Your task to perform on an android device: Clear the shopping cart on newegg.com. Add "logitech g933" to the cart on newegg.com, then select checkout. Image 0: 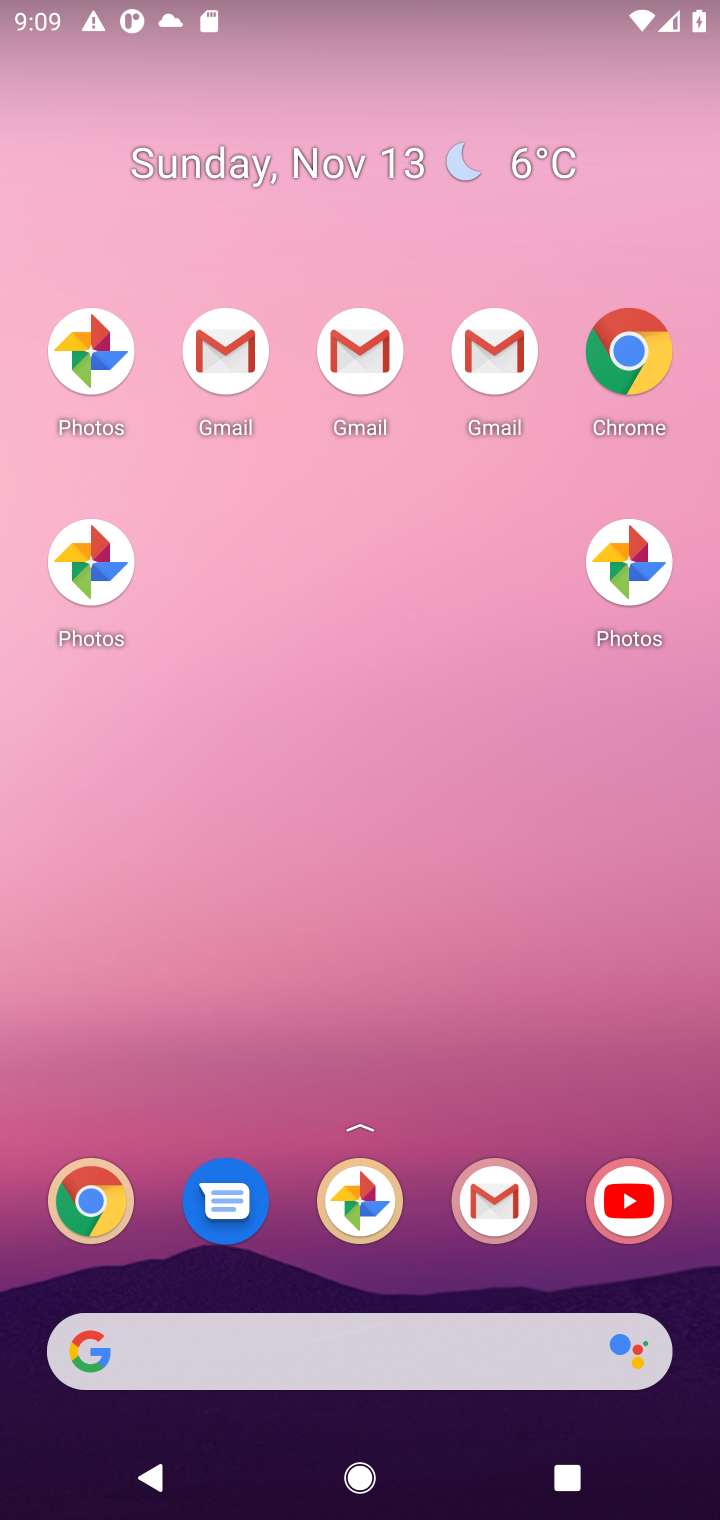
Step 0: drag from (430, 959) to (516, 54)
Your task to perform on an android device: Clear the shopping cart on newegg.com. Add "logitech g933" to the cart on newegg.com, then select checkout. Image 1: 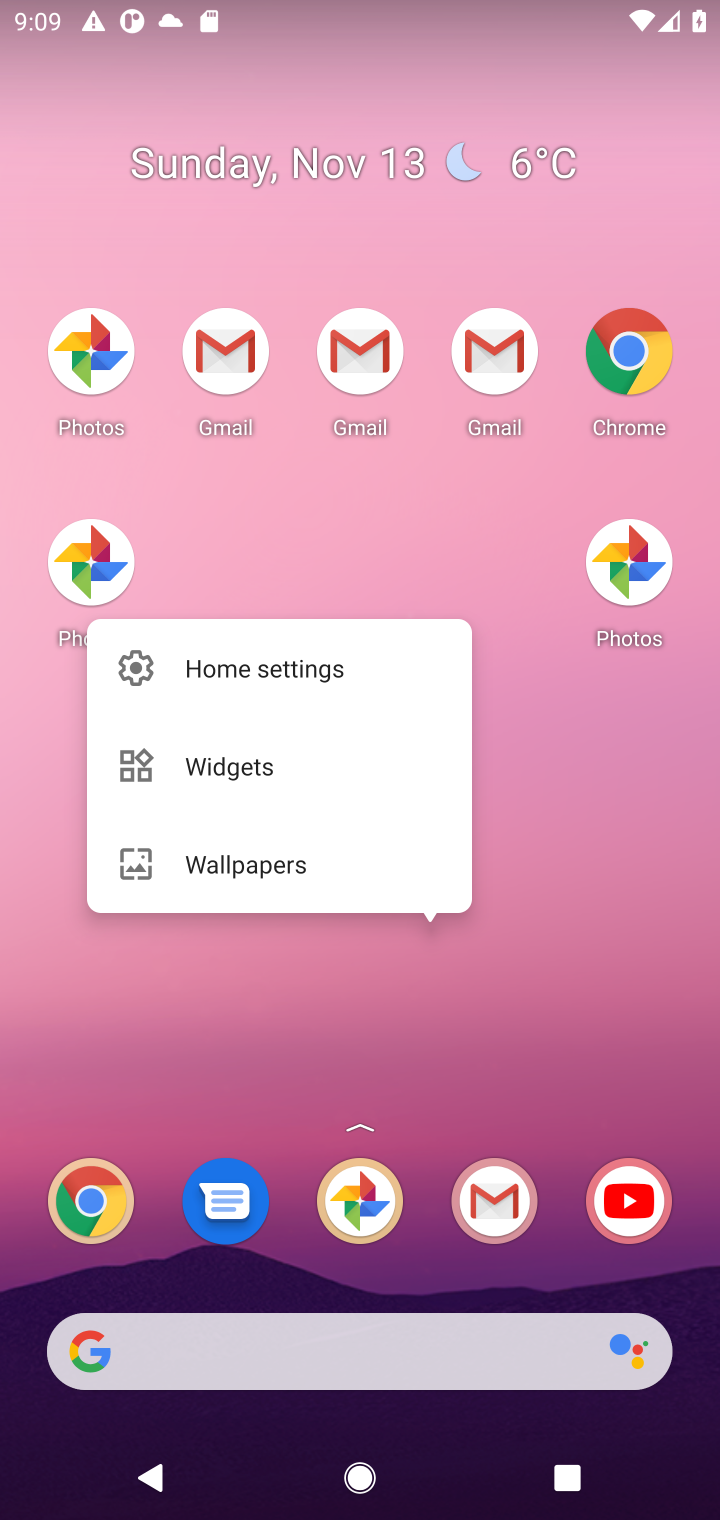
Step 1: click (552, 993)
Your task to perform on an android device: Clear the shopping cart on newegg.com. Add "logitech g933" to the cart on newegg.com, then select checkout. Image 2: 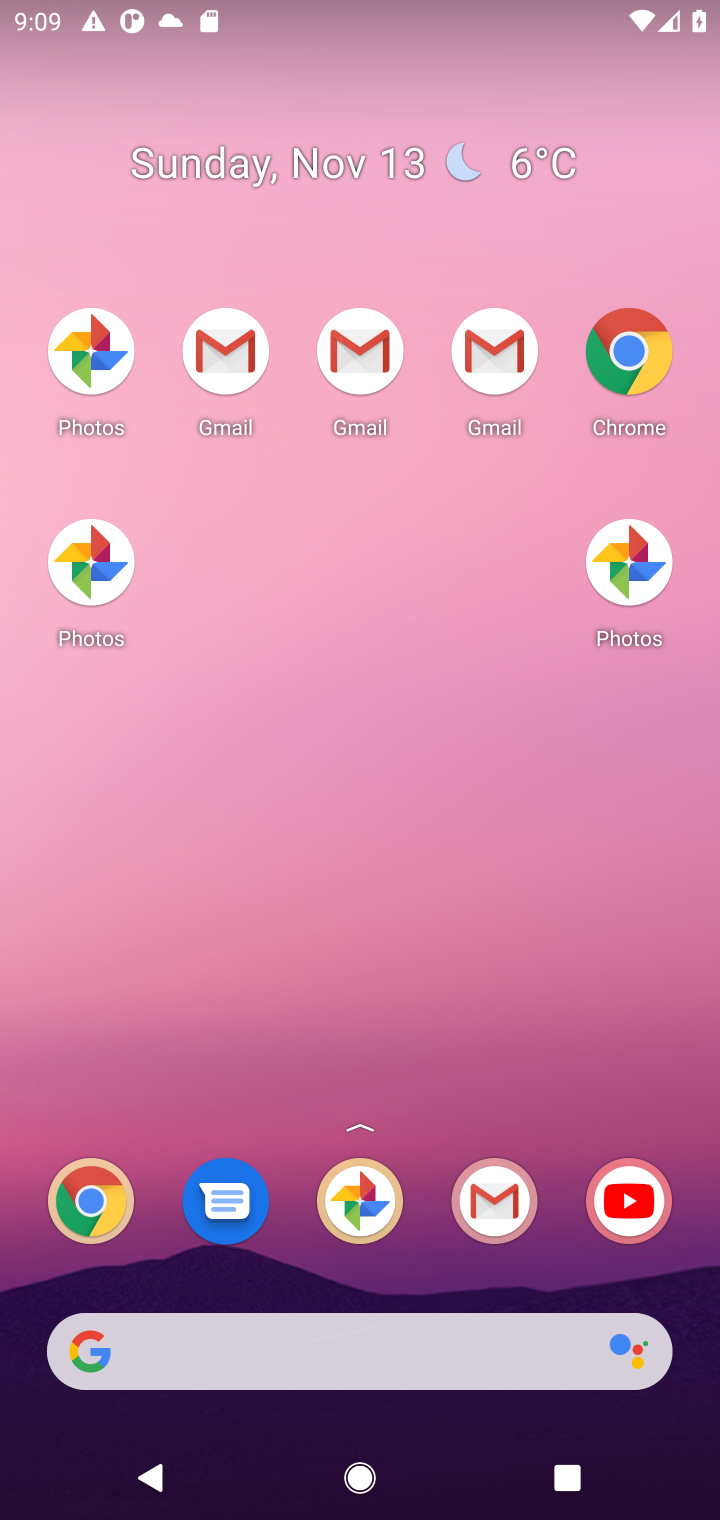
Step 2: drag from (439, 679) to (475, 47)
Your task to perform on an android device: Clear the shopping cart on newegg.com. Add "logitech g933" to the cart on newegg.com, then select checkout. Image 3: 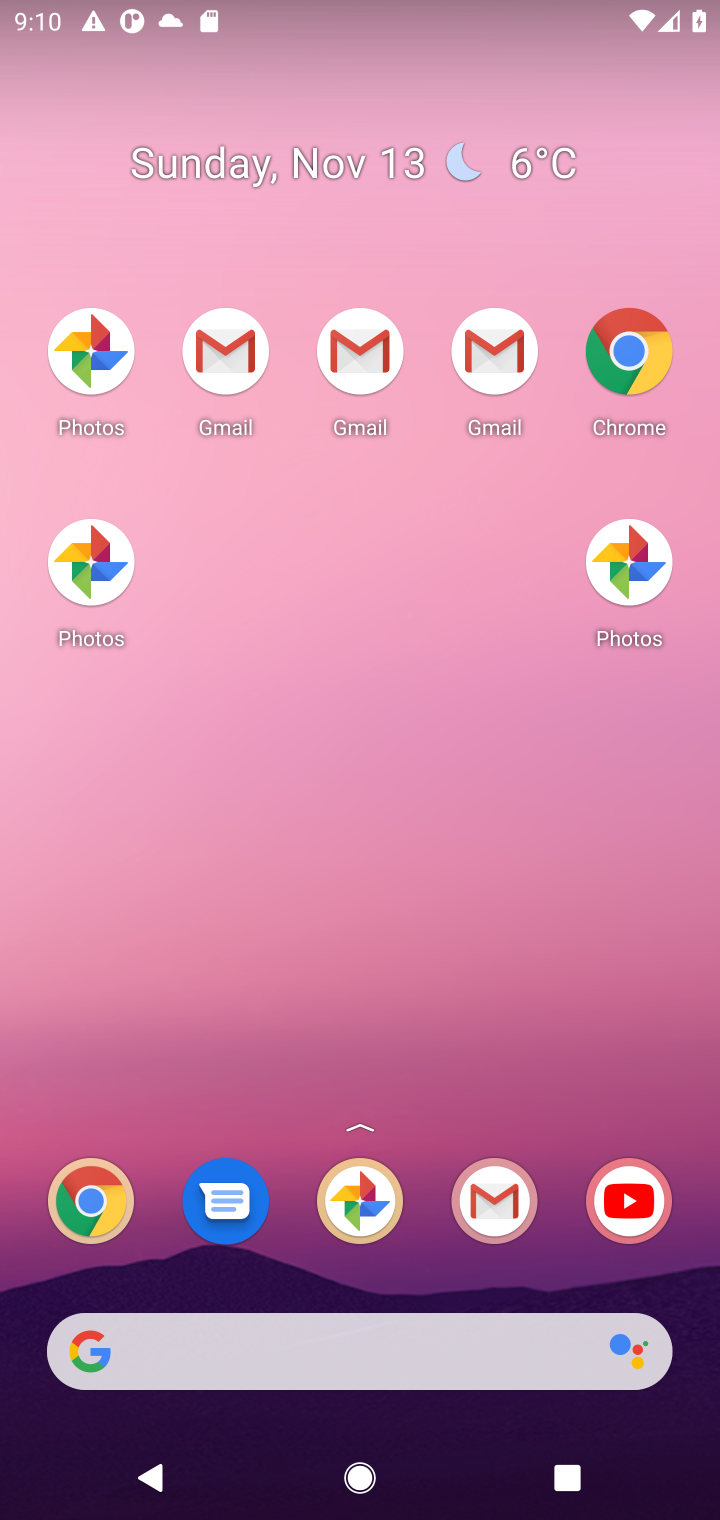
Step 3: drag from (473, 981) to (481, 30)
Your task to perform on an android device: Clear the shopping cart on newegg.com. Add "logitech g933" to the cart on newegg.com, then select checkout. Image 4: 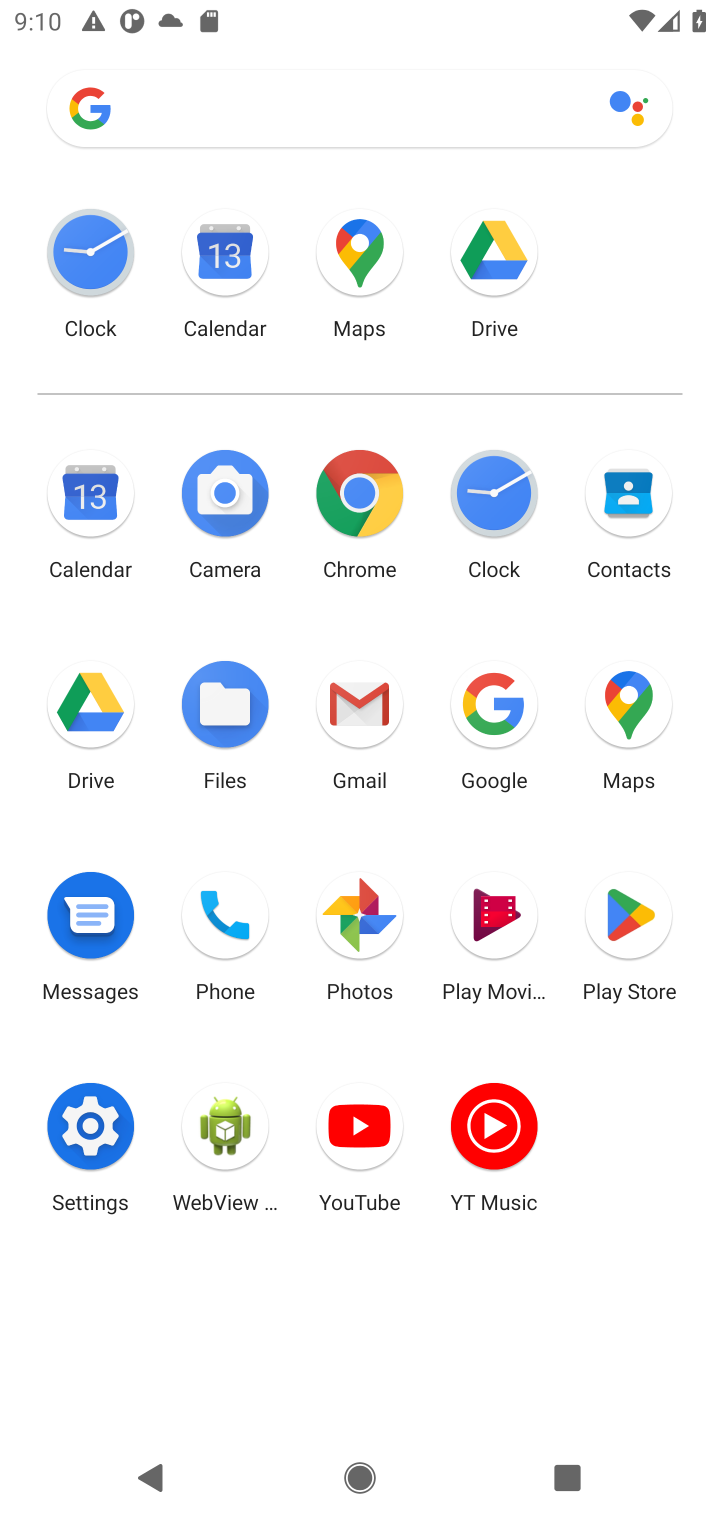
Step 4: click (334, 509)
Your task to perform on an android device: Clear the shopping cart on newegg.com. Add "logitech g933" to the cart on newegg.com, then select checkout. Image 5: 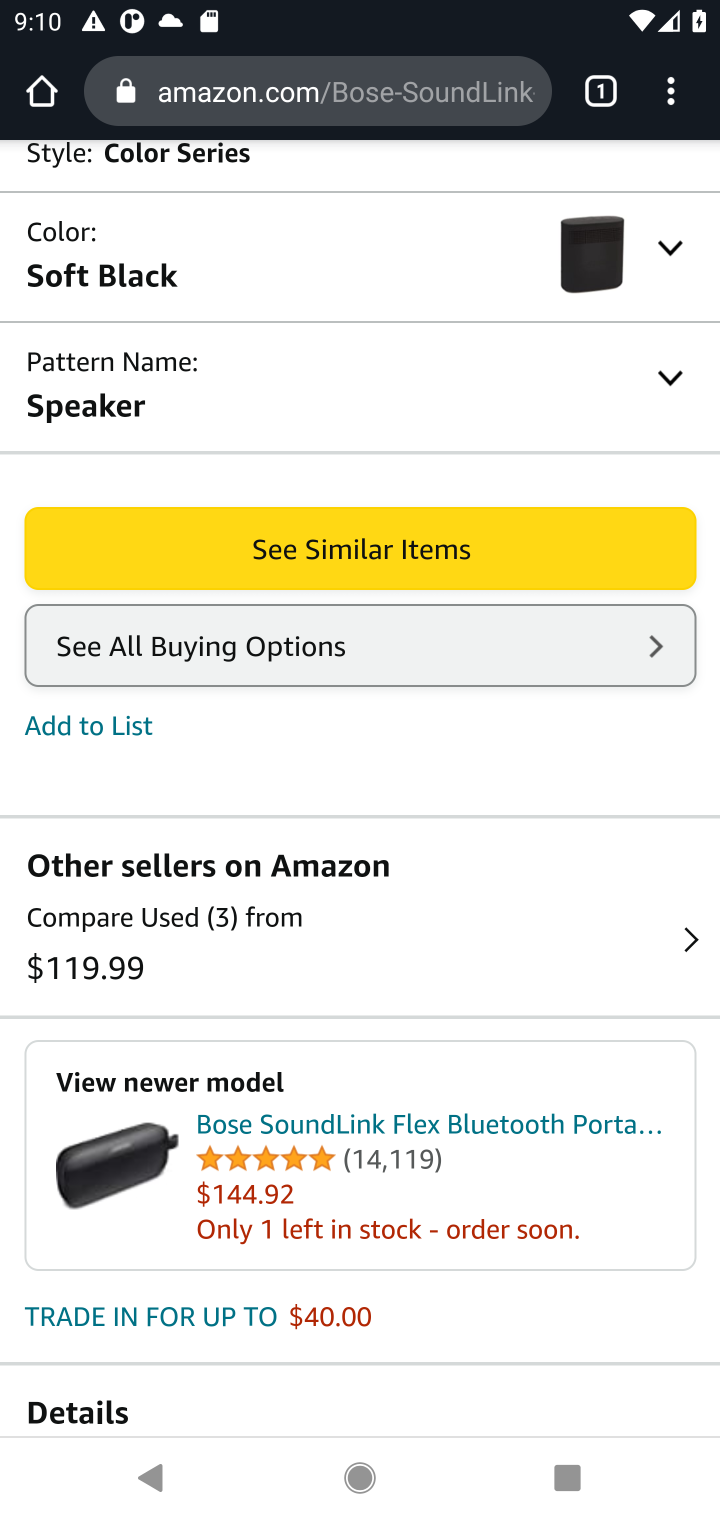
Step 5: click (370, 79)
Your task to perform on an android device: Clear the shopping cart on newegg.com. Add "logitech g933" to the cart on newegg.com, then select checkout. Image 6: 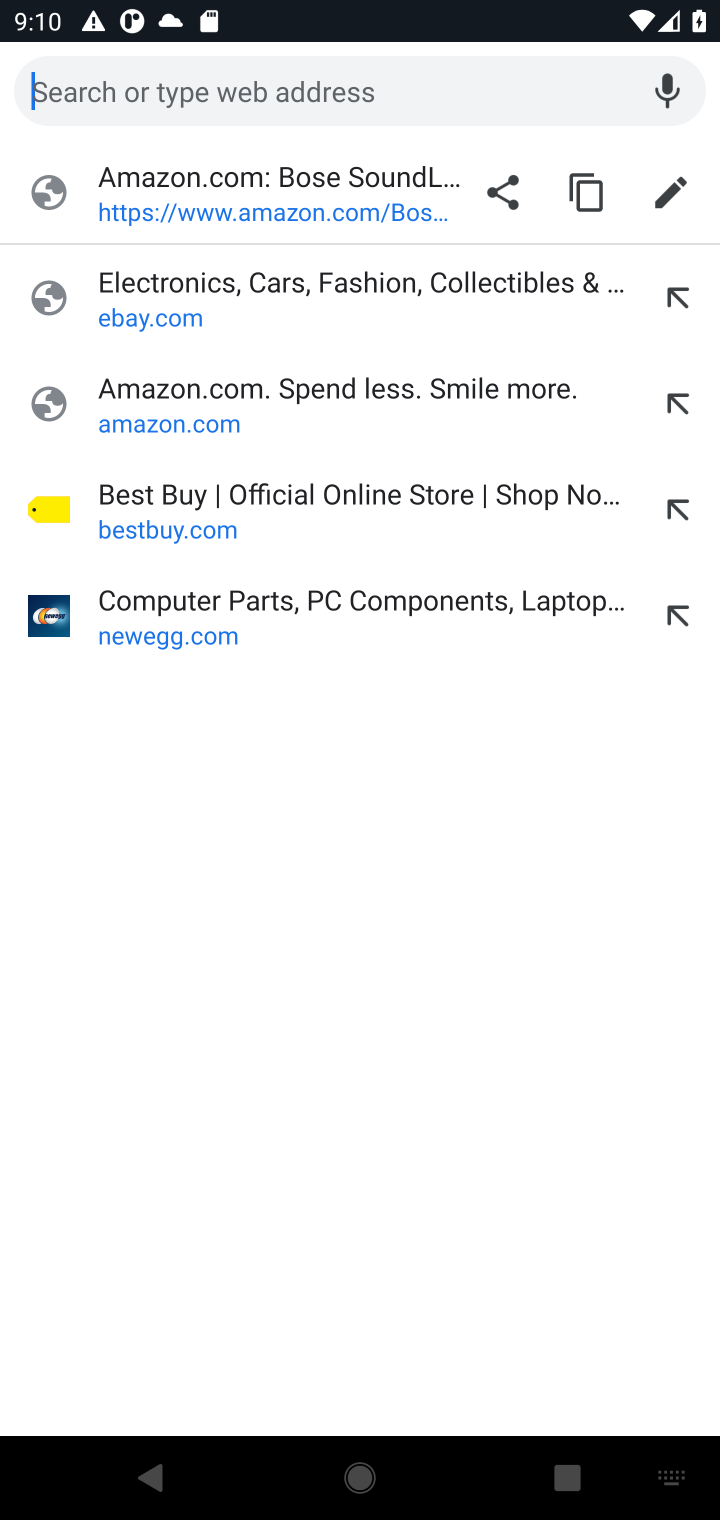
Step 6: type "newegg.com"
Your task to perform on an android device: Clear the shopping cart on newegg.com. Add "logitech g933" to the cart on newegg.com, then select checkout. Image 7: 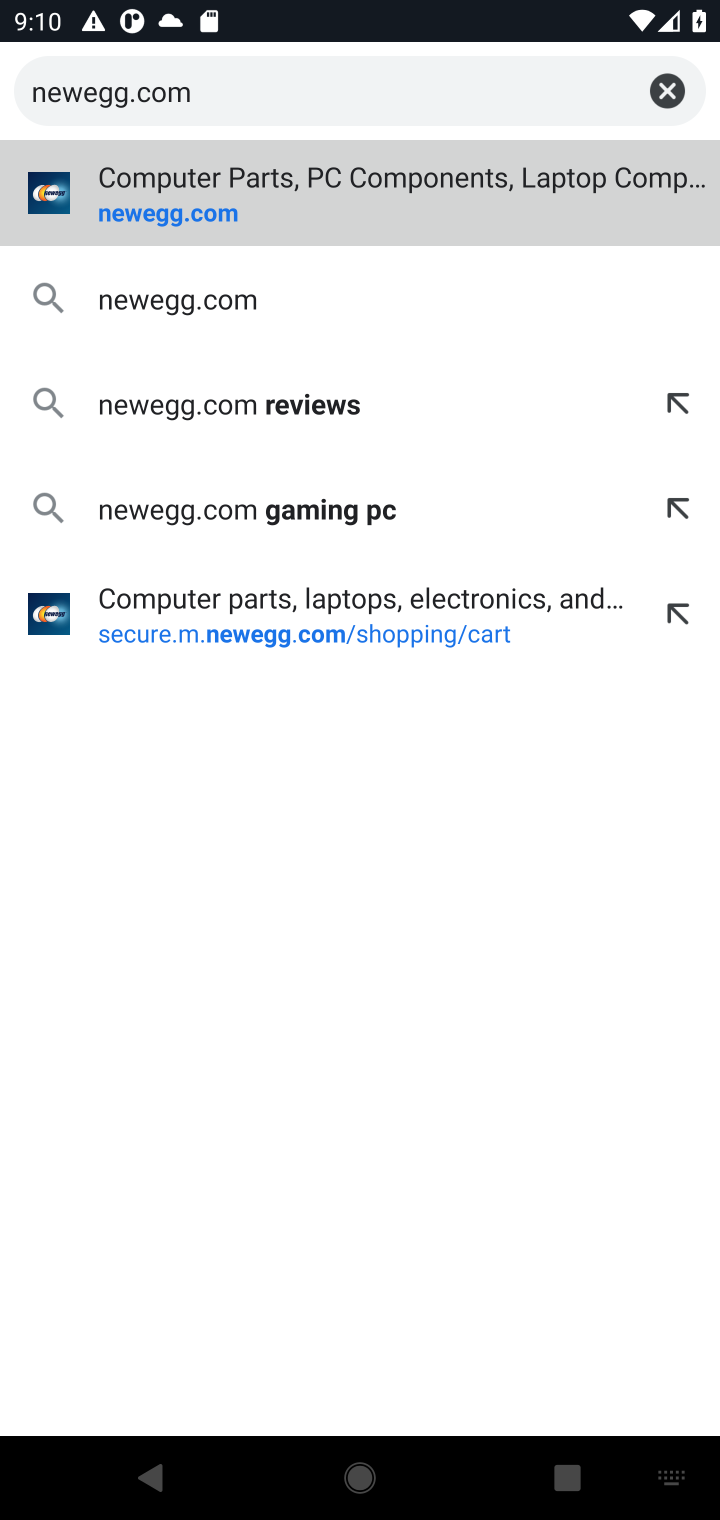
Step 7: press enter
Your task to perform on an android device: Clear the shopping cart on newegg.com. Add "logitech g933" to the cart on newegg.com, then select checkout. Image 8: 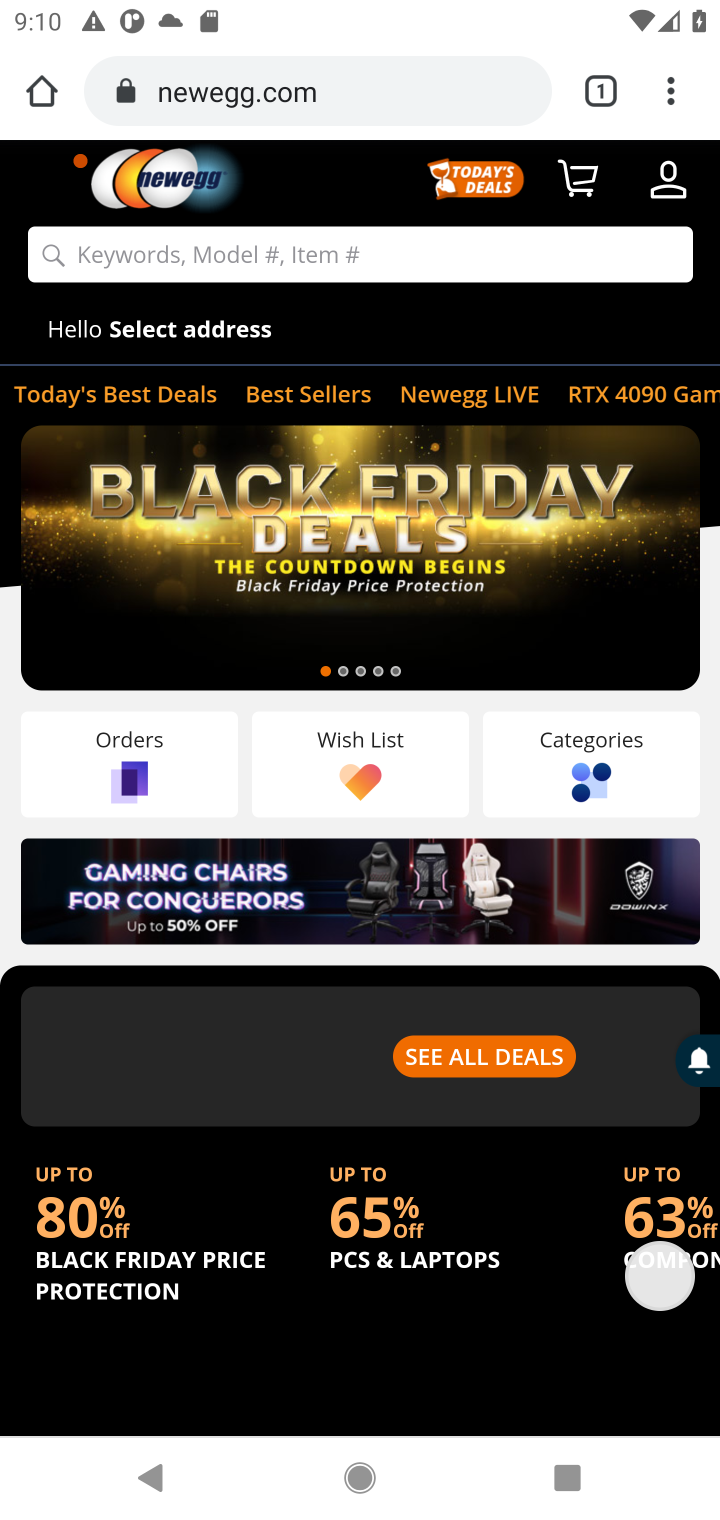
Step 8: click (586, 180)
Your task to perform on an android device: Clear the shopping cart on newegg.com. Add "logitech g933" to the cart on newegg.com, then select checkout. Image 9: 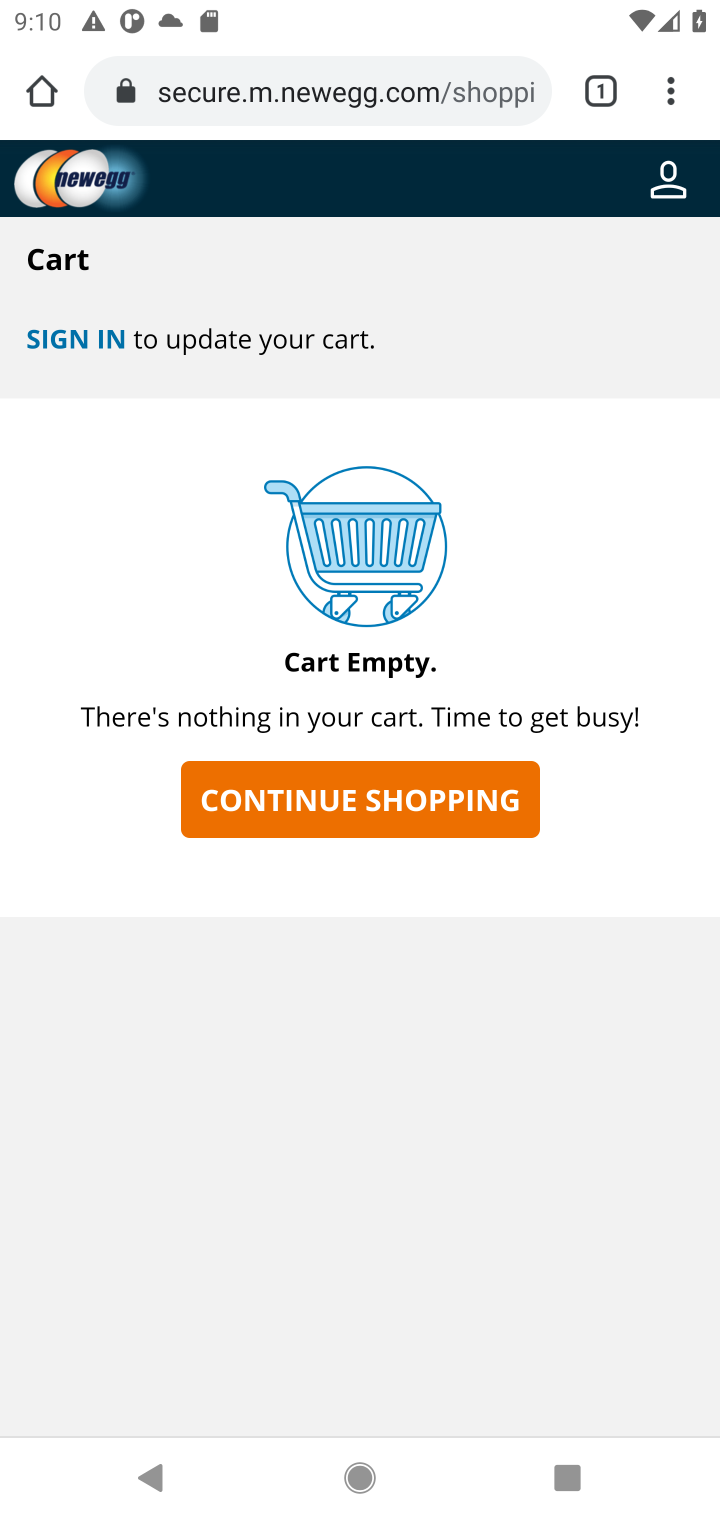
Step 9: click (474, 792)
Your task to perform on an android device: Clear the shopping cart on newegg.com. Add "logitech g933" to the cart on newegg.com, then select checkout. Image 10: 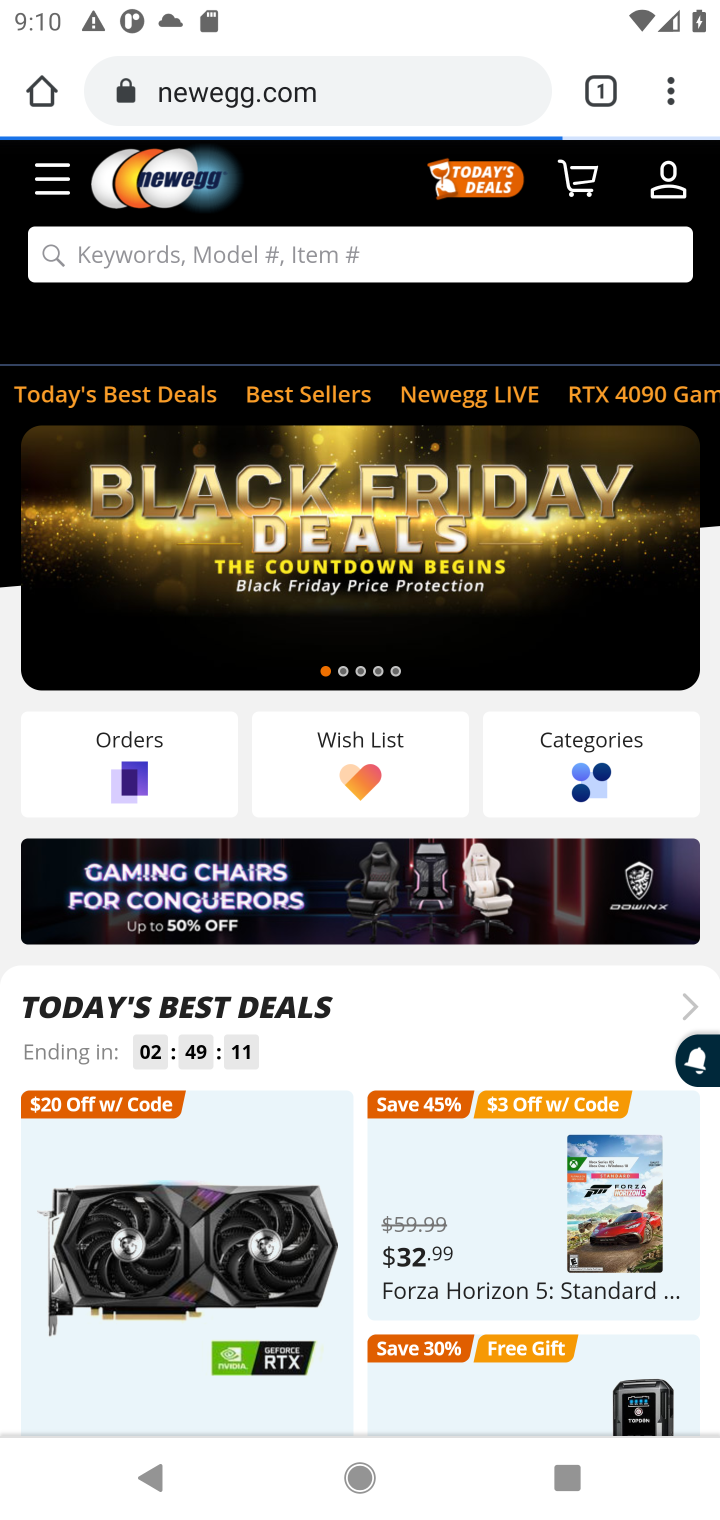
Step 10: click (219, 242)
Your task to perform on an android device: Clear the shopping cart on newegg.com. Add "logitech g933" to the cart on newegg.com, then select checkout. Image 11: 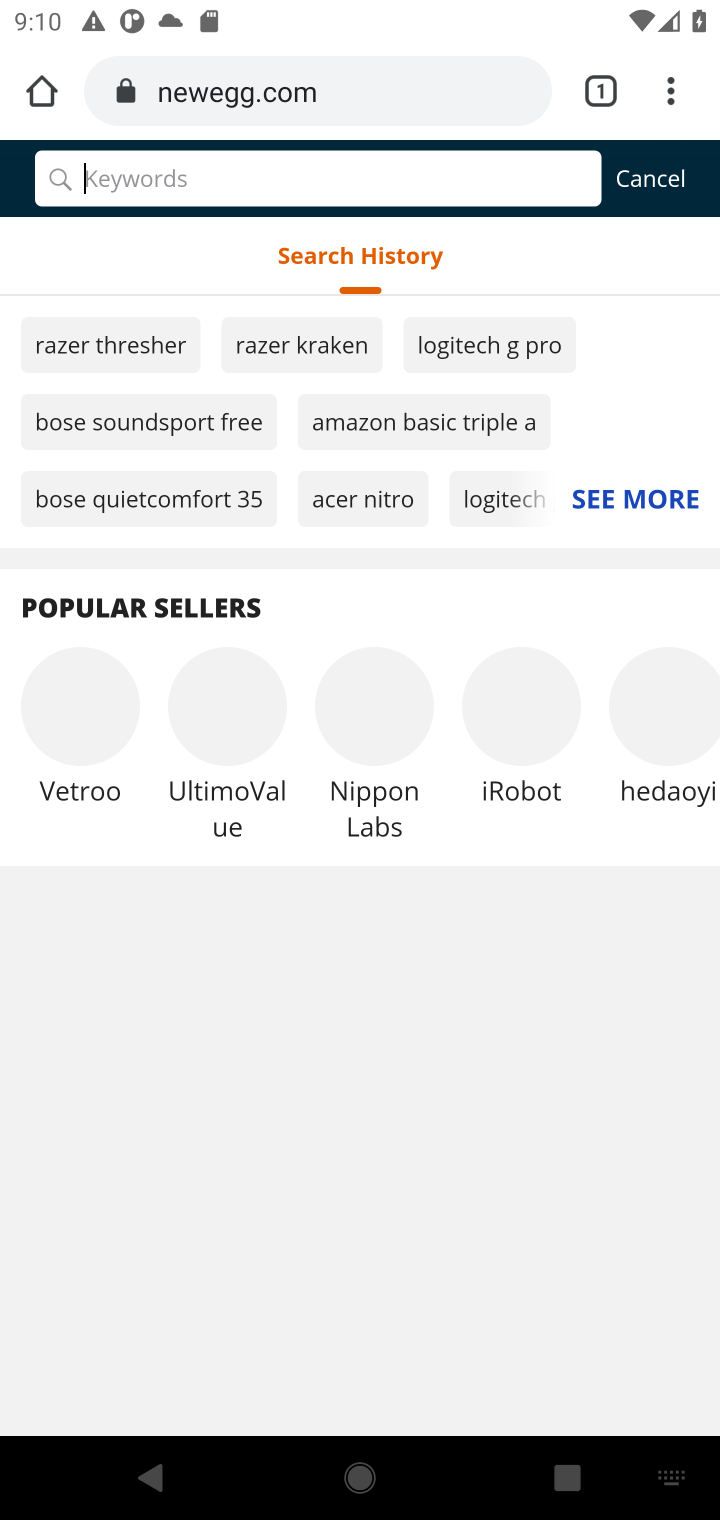
Step 11: click (470, 248)
Your task to perform on an android device: Clear the shopping cart on newegg.com. Add "logitech g933" to the cart on newegg.com, then select checkout. Image 12: 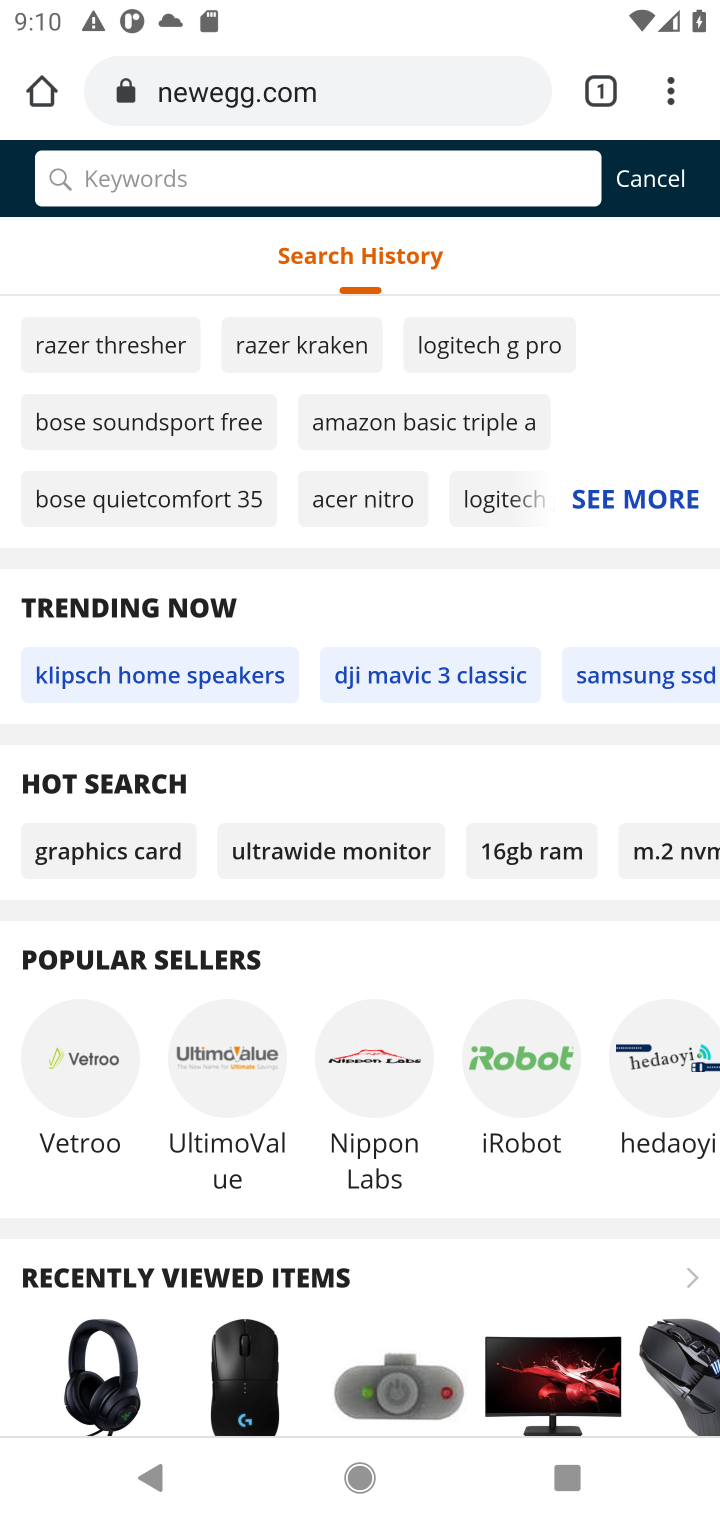
Step 12: click (335, 172)
Your task to perform on an android device: Clear the shopping cart on newegg.com. Add "logitech g933" to the cart on newegg.com, then select checkout. Image 13: 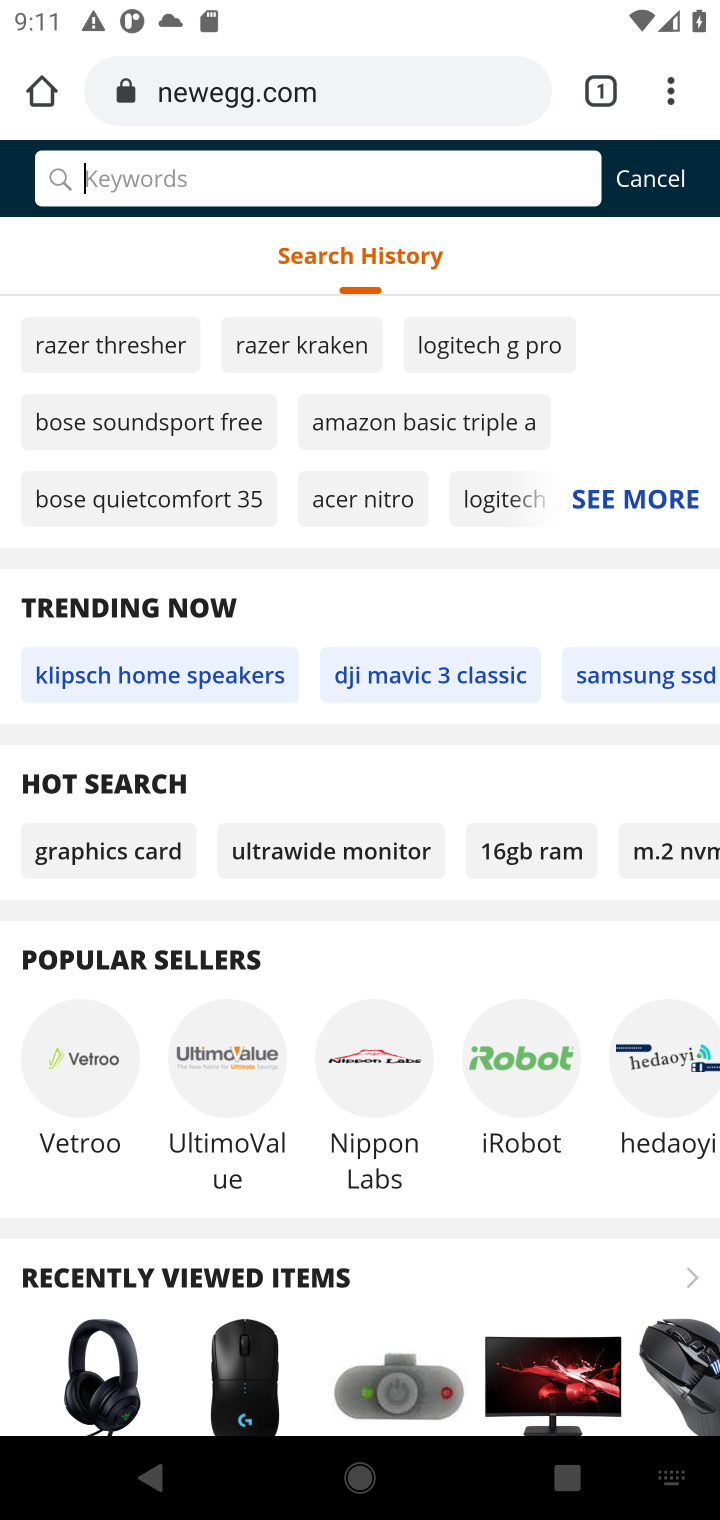
Step 13: type "logitech g933"
Your task to perform on an android device: Clear the shopping cart on newegg.com. Add "logitech g933" to the cart on newegg.com, then select checkout. Image 14: 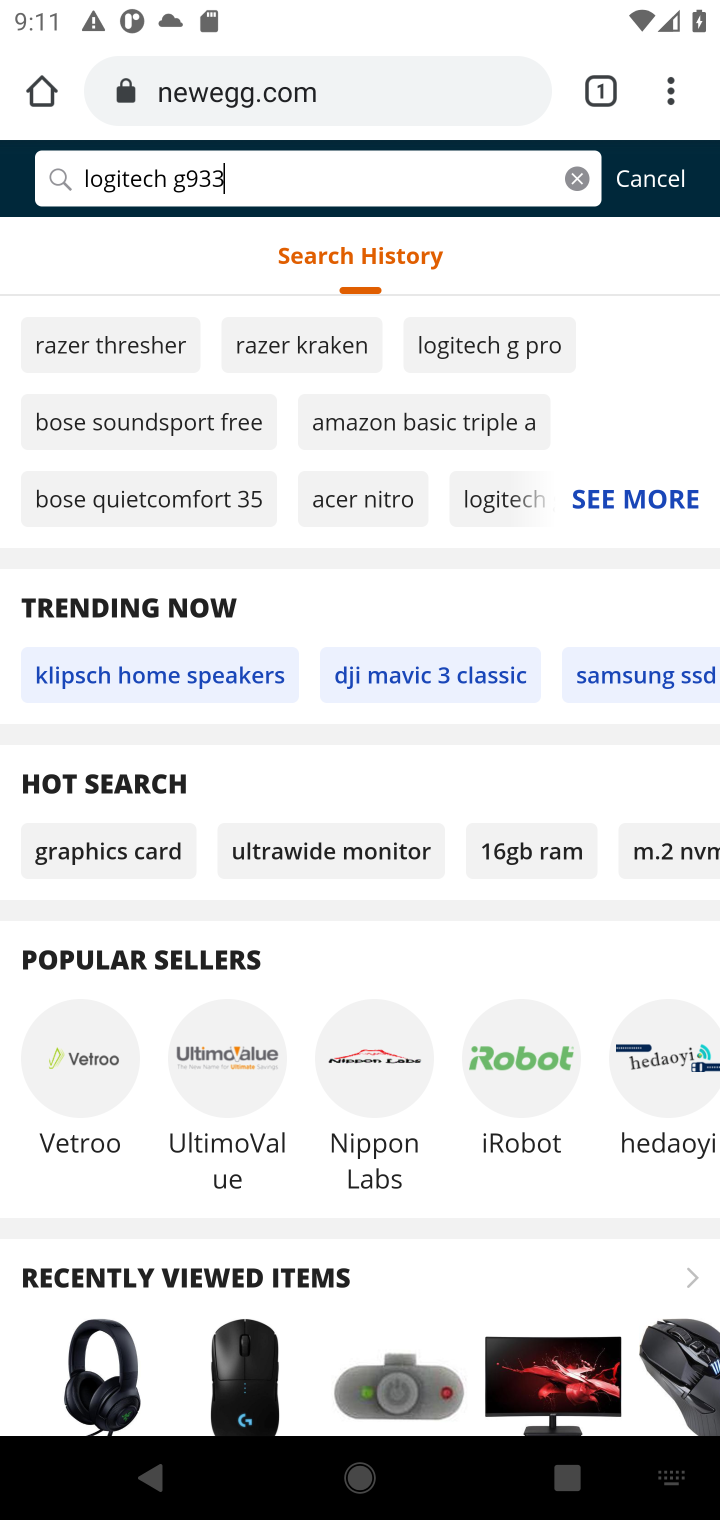
Step 14: press enter
Your task to perform on an android device: Clear the shopping cart on newegg.com. Add "logitech g933" to the cart on newegg.com, then select checkout. Image 15: 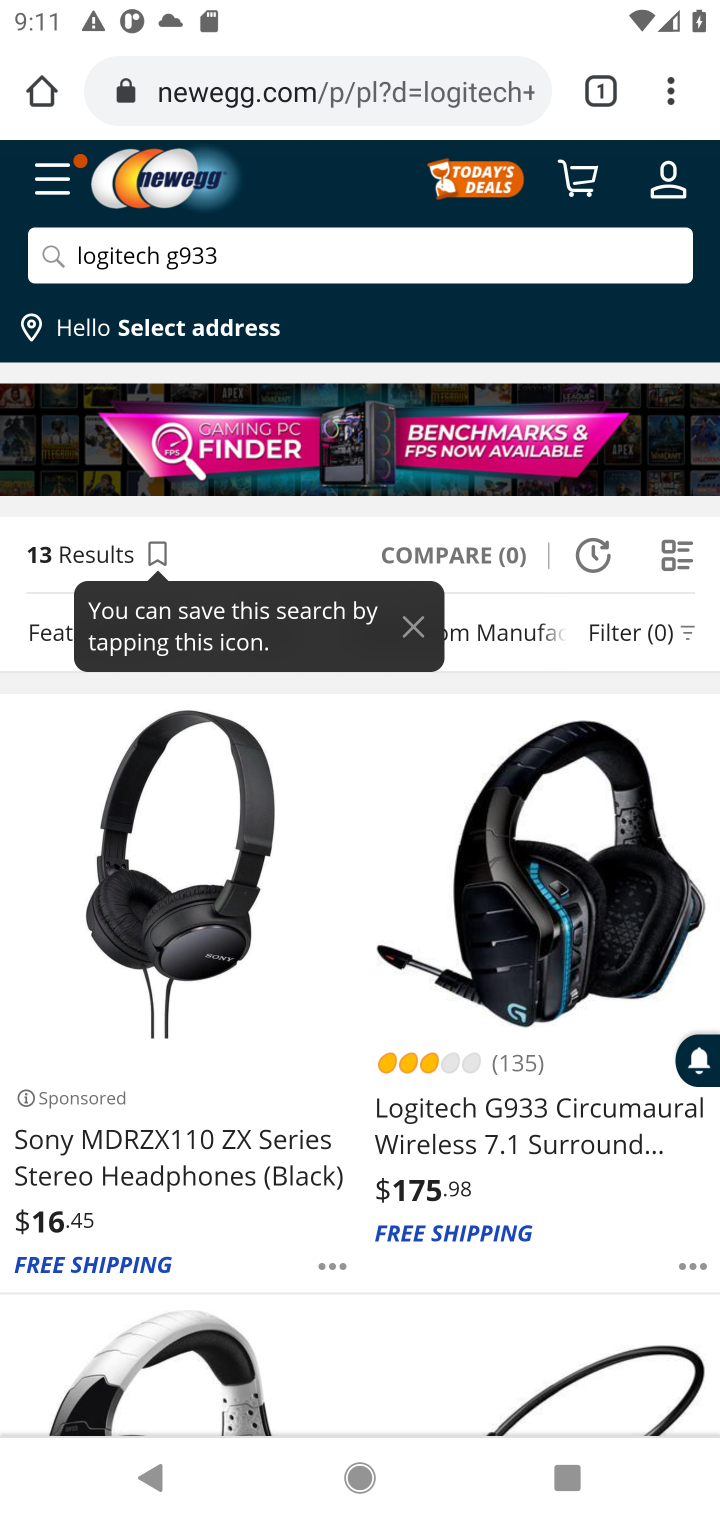
Step 15: click (496, 1116)
Your task to perform on an android device: Clear the shopping cart on newegg.com. Add "logitech g933" to the cart on newegg.com, then select checkout. Image 16: 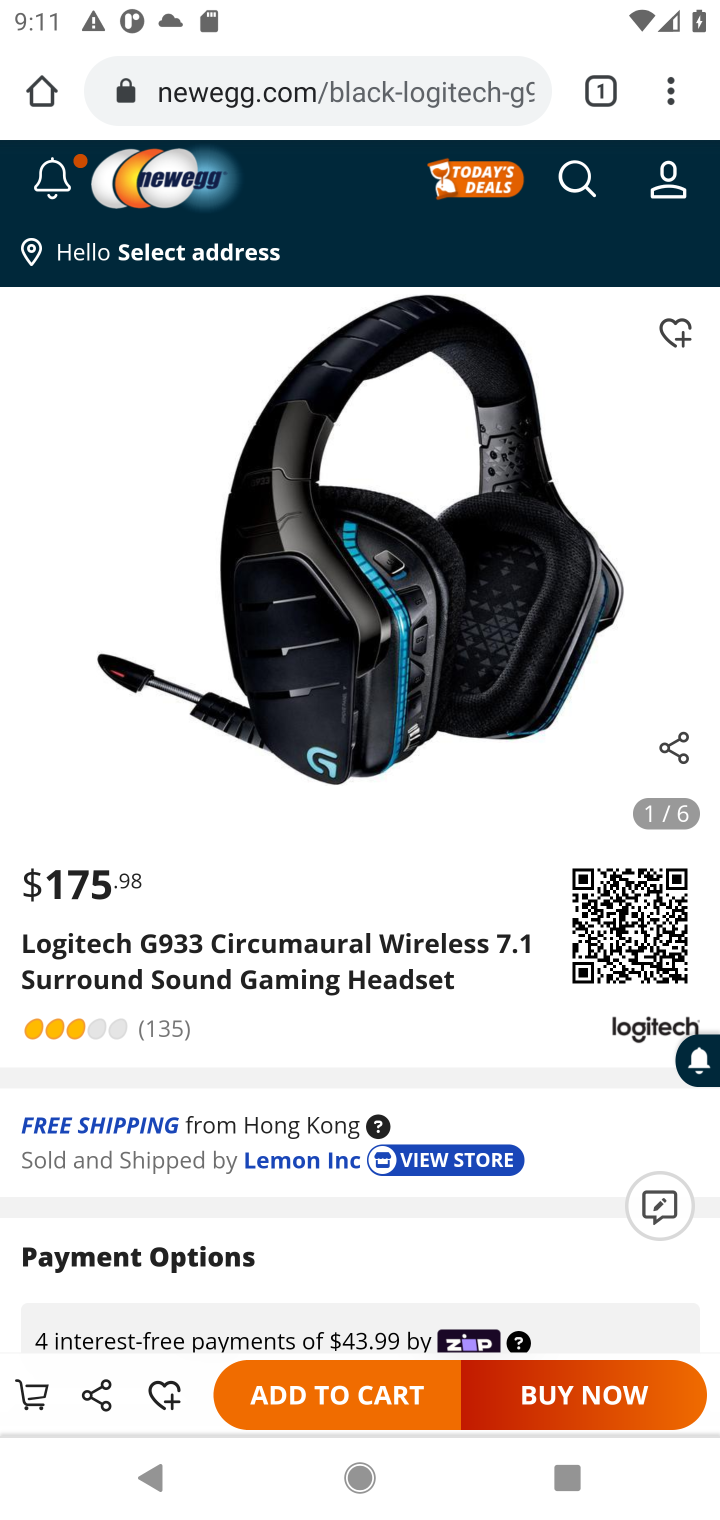
Step 16: click (292, 1392)
Your task to perform on an android device: Clear the shopping cart on newegg.com. Add "logitech g933" to the cart on newegg.com, then select checkout. Image 17: 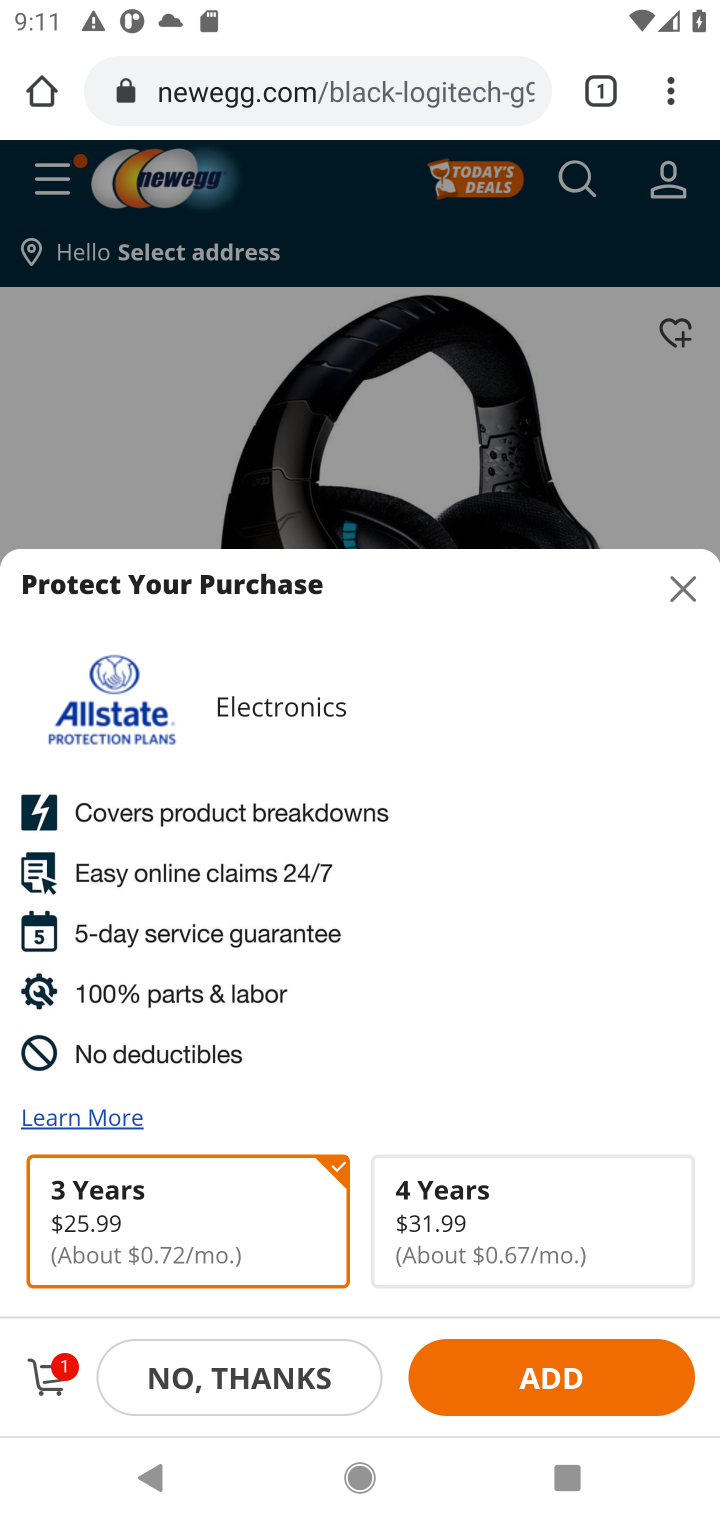
Step 17: click (57, 1382)
Your task to perform on an android device: Clear the shopping cart on newegg.com. Add "logitech g933" to the cart on newegg.com, then select checkout. Image 18: 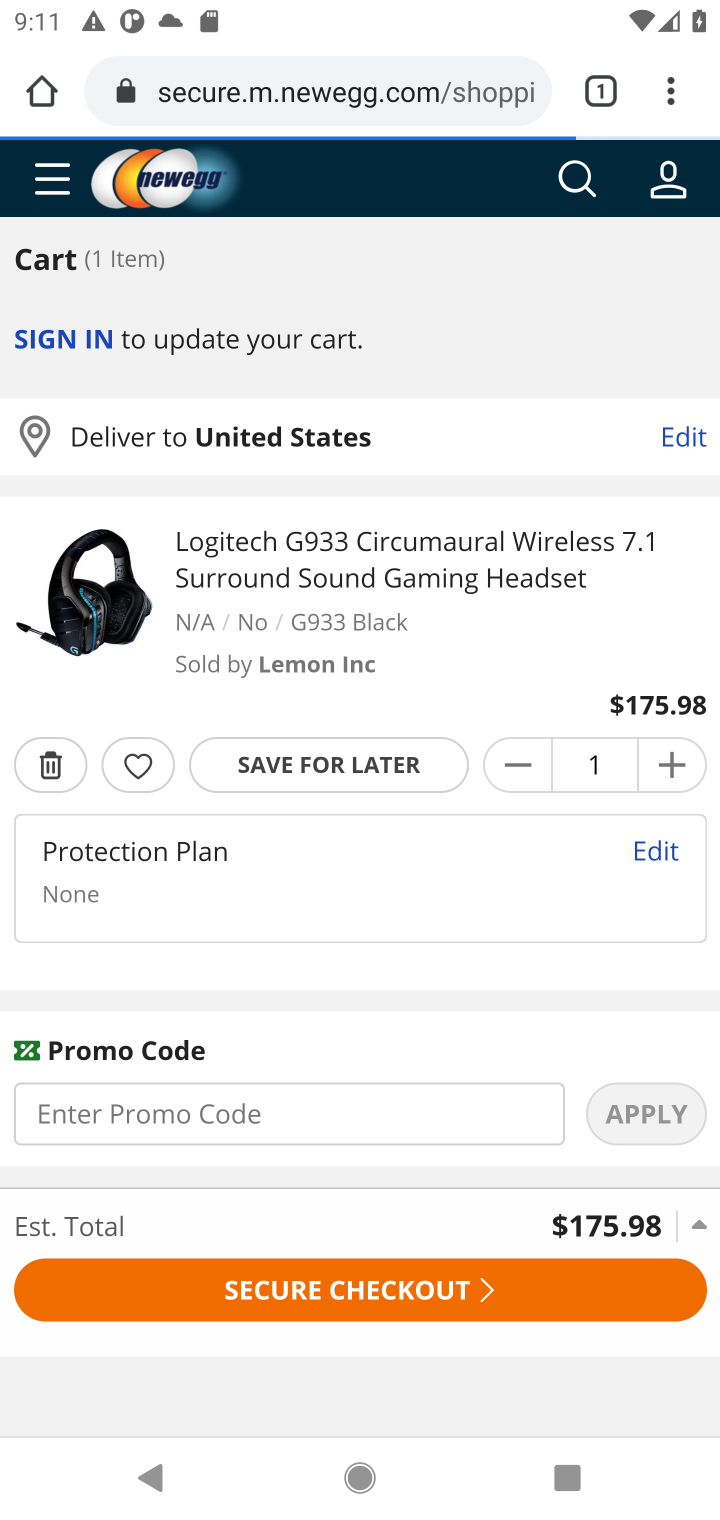
Step 18: click (455, 1214)
Your task to perform on an android device: Clear the shopping cart on newegg.com. Add "logitech g933" to the cart on newegg.com, then select checkout. Image 19: 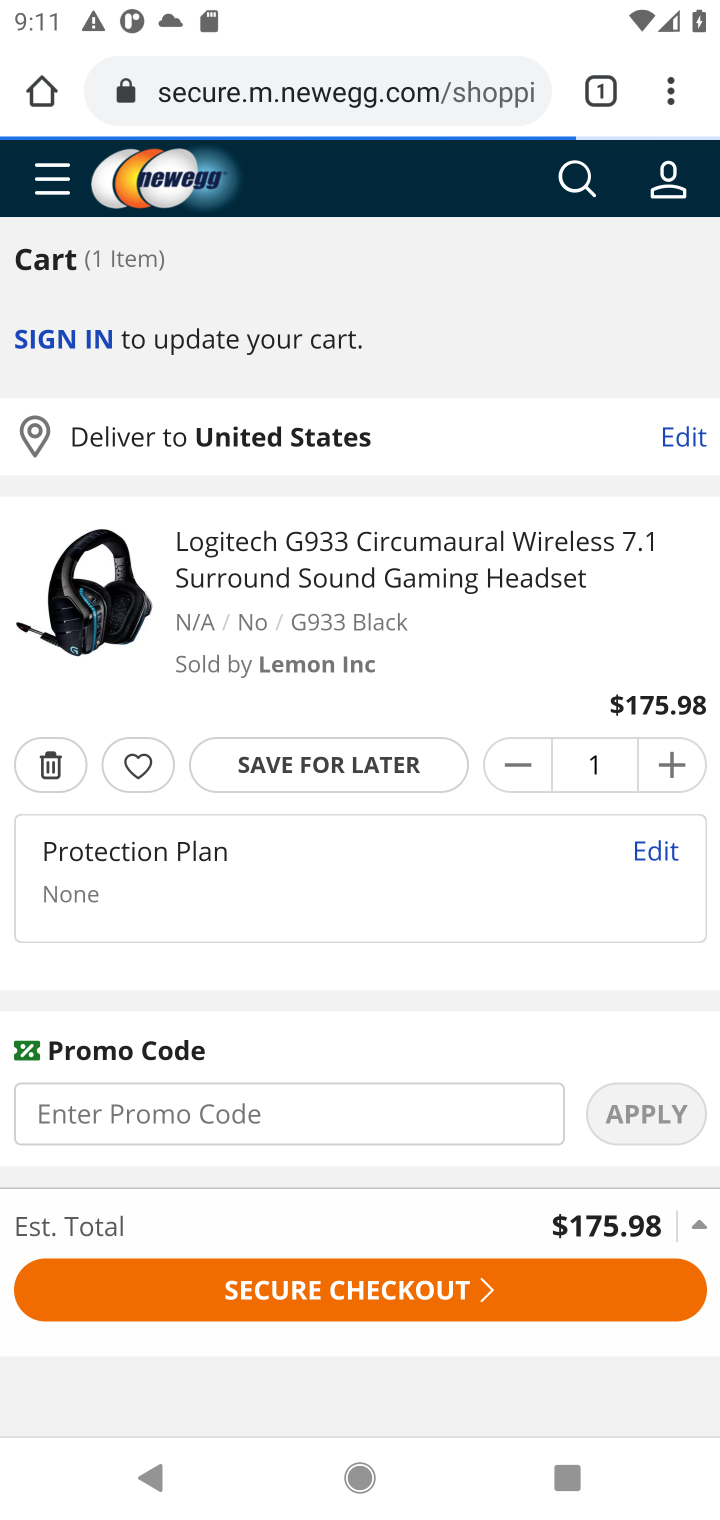
Step 19: click (459, 1273)
Your task to perform on an android device: Clear the shopping cart on newegg.com. Add "logitech g933" to the cart on newegg.com, then select checkout. Image 20: 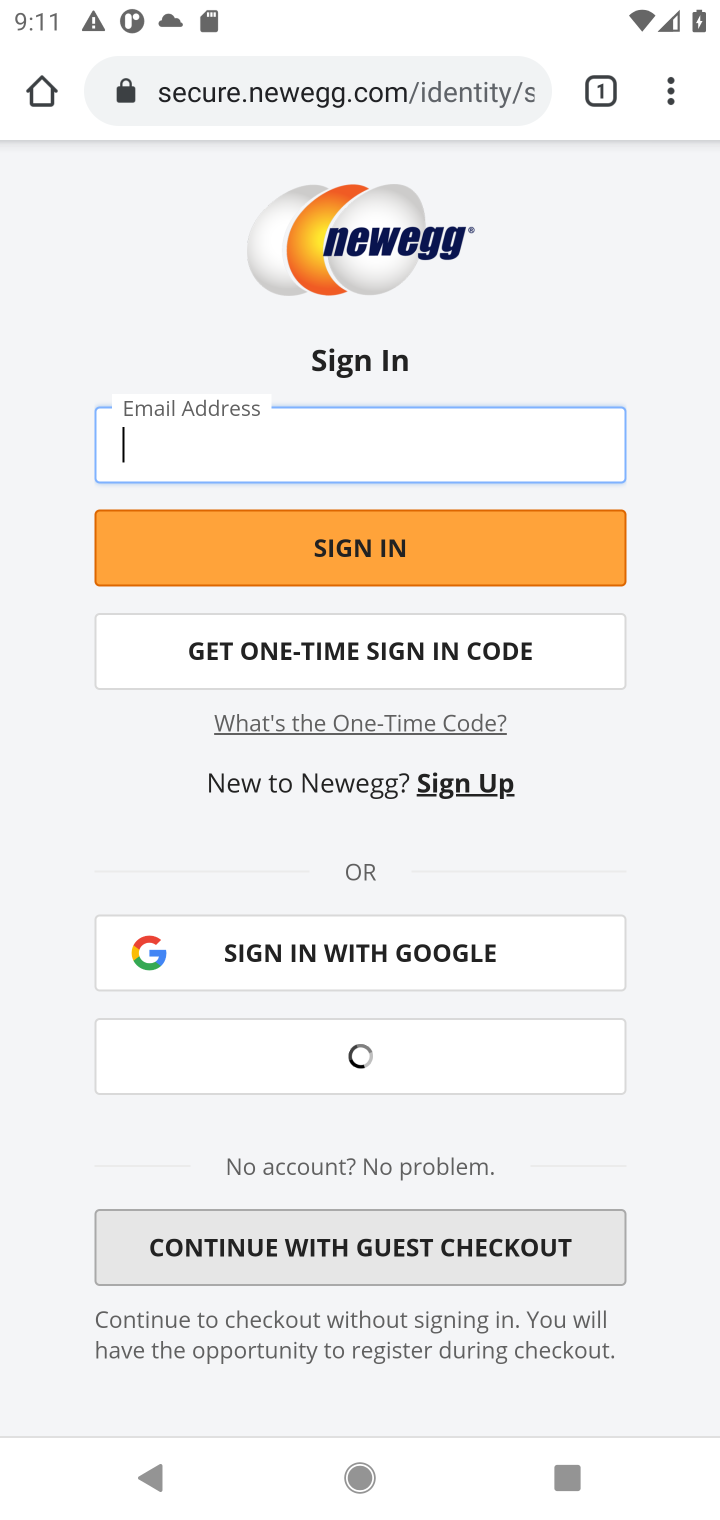
Step 20: task complete